Your task to perform on an android device: Open calendar and show me the second week of next month Image 0: 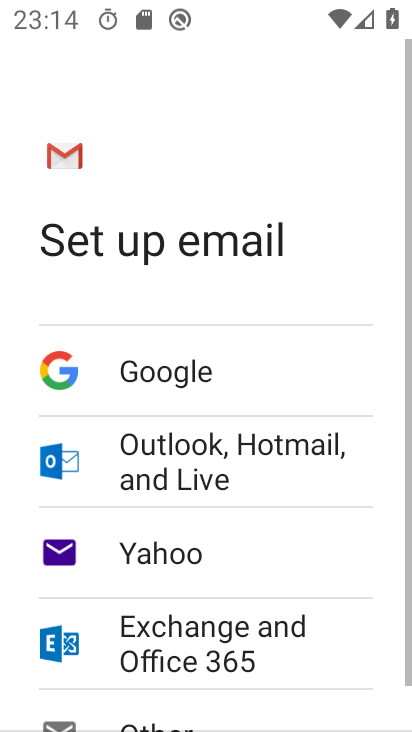
Step 0: press home button
Your task to perform on an android device: Open calendar and show me the second week of next month Image 1: 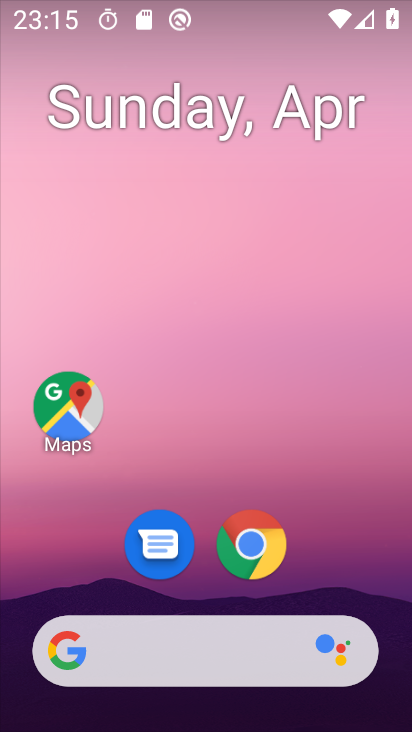
Step 1: drag from (309, 524) to (325, 269)
Your task to perform on an android device: Open calendar and show me the second week of next month Image 2: 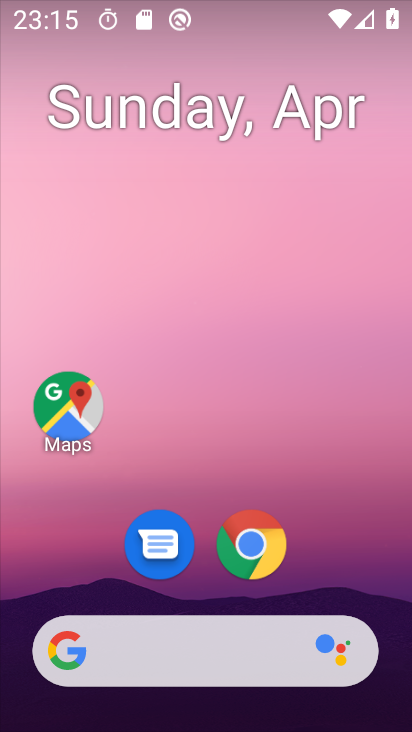
Step 2: drag from (338, 573) to (342, 211)
Your task to perform on an android device: Open calendar and show me the second week of next month Image 3: 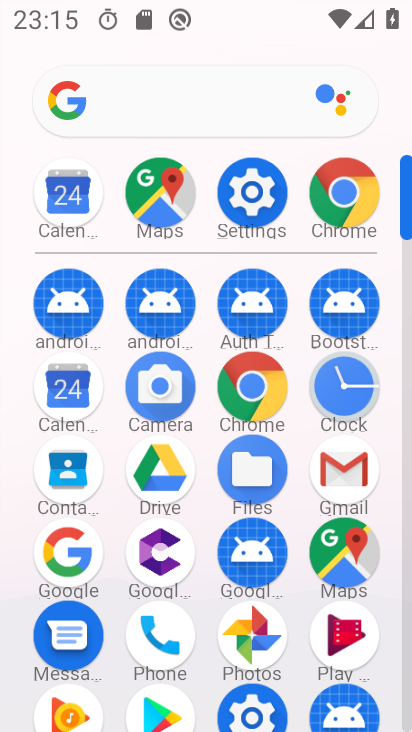
Step 3: click (67, 380)
Your task to perform on an android device: Open calendar and show me the second week of next month Image 4: 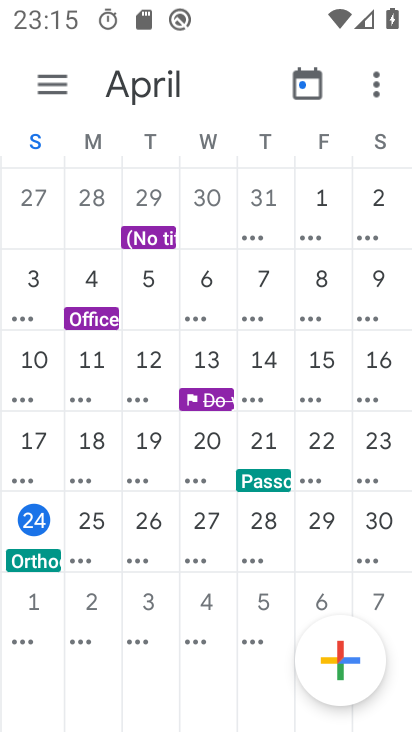
Step 4: task complete